Your task to perform on an android device: What's the weather going to be tomorrow? Image 0: 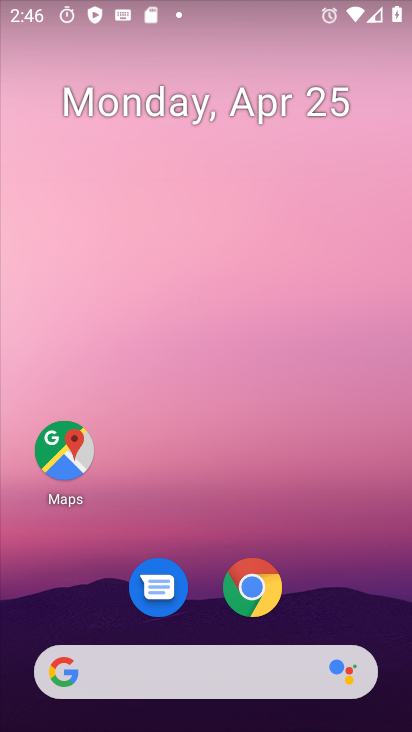
Step 0: drag from (321, 492) to (318, 82)
Your task to perform on an android device: What's the weather going to be tomorrow? Image 1: 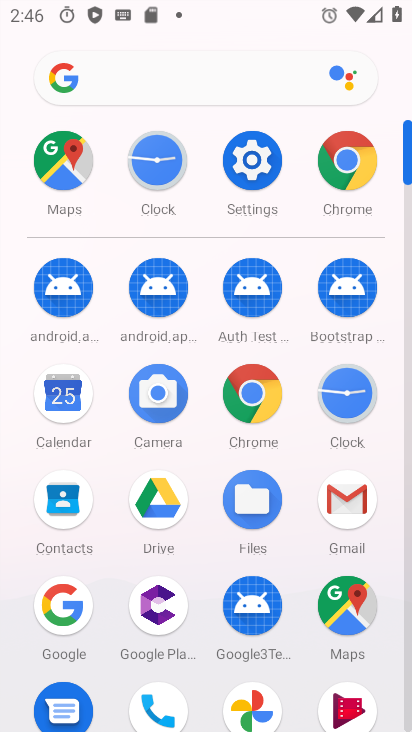
Step 1: press home button
Your task to perform on an android device: What's the weather going to be tomorrow? Image 2: 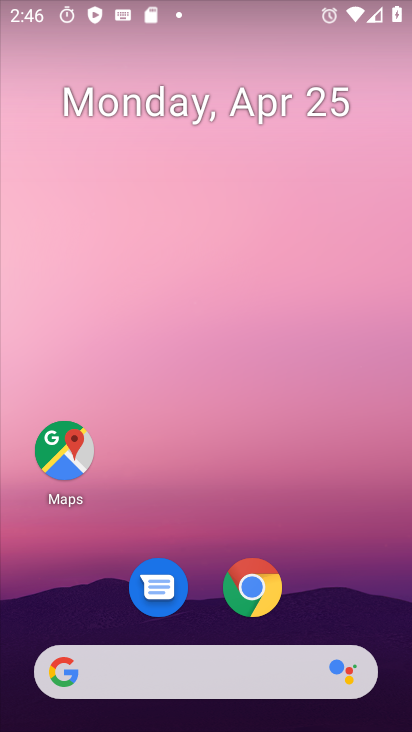
Step 2: drag from (291, 203) to (267, 24)
Your task to perform on an android device: What's the weather going to be tomorrow? Image 3: 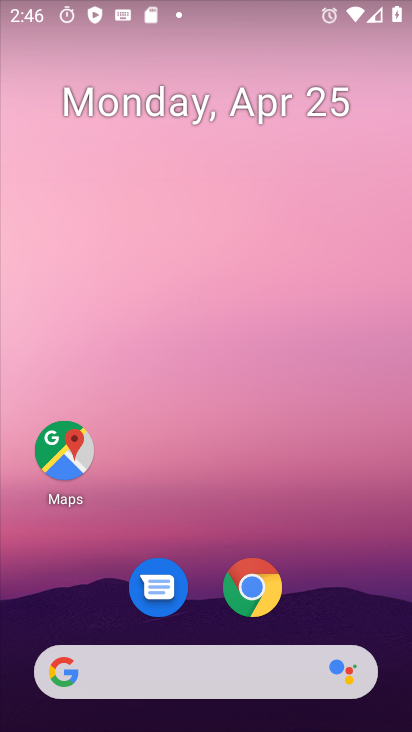
Step 3: drag from (347, 621) to (333, 193)
Your task to perform on an android device: What's the weather going to be tomorrow? Image 4: 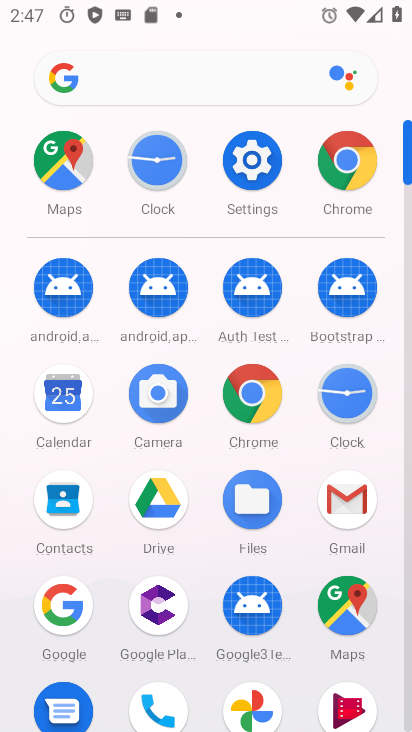
Step 4: click (256, 382)
Your task to perform on an android device: What's the weather going to be tomorrow? Image 5: 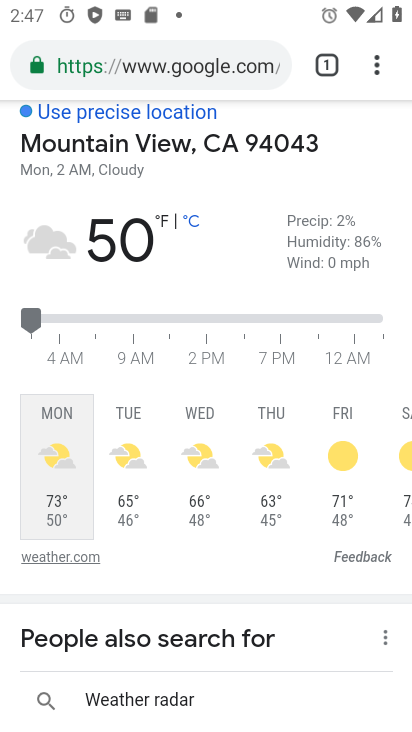
Step 5: click (137, 456)
Your task to perform on an android device: What's the weather going to be tomorrow? Image 6: 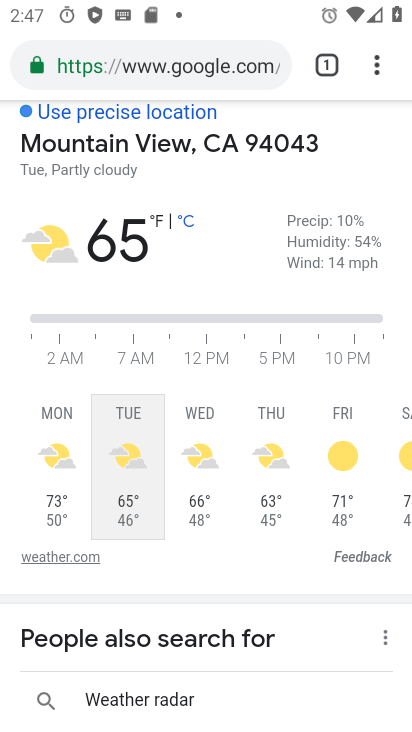
Step 6: task complete